Your task to perform on an android device: Open Wikipedia Image 0: 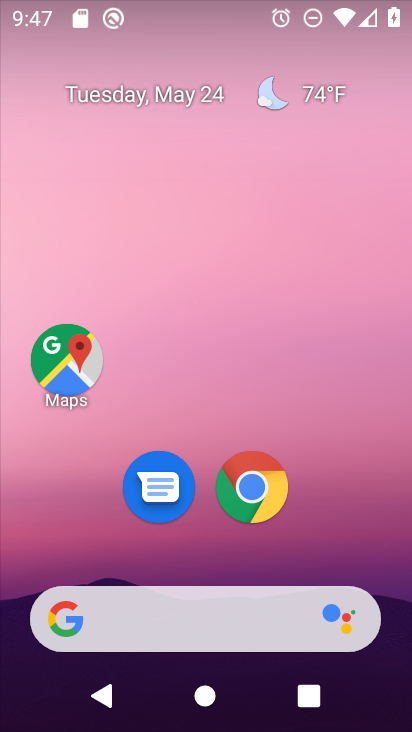
Step 0: click (244, 489)
Your task to perform on an android device: Open Wikipedia Image 1: 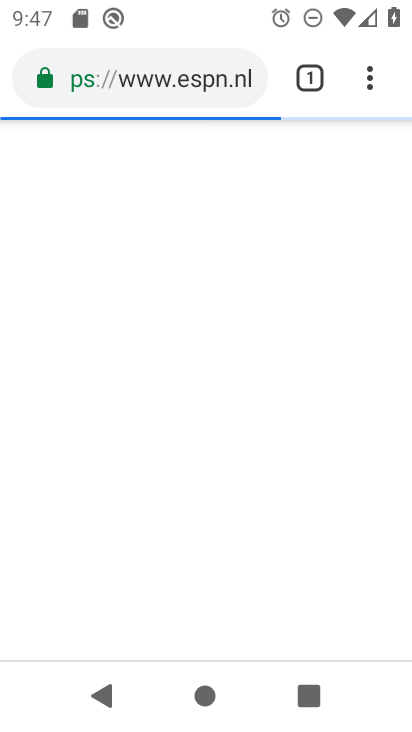
Step 1: click (85, 86)
Your task to perform on an android device: Open Wikipedia Image 2: 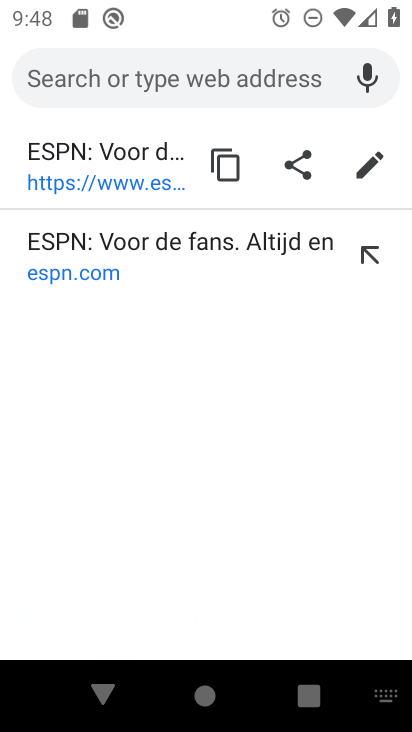
Step 2: type "wikipedia"
Your task to perform on an android device: Open Wikipedia Image 3: 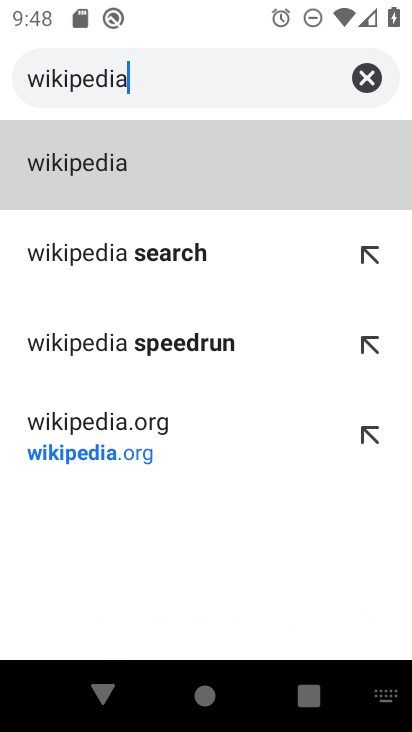
Step 3: click (42, 166)
Your task to perform on an android device: Open Wikipedia Image 4: 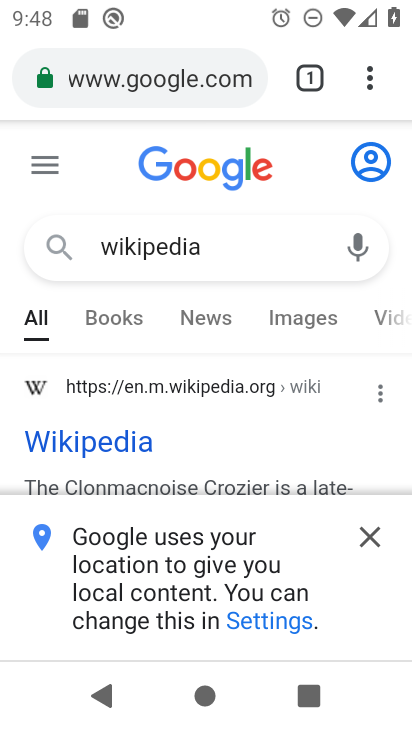
Step 4: click (123, 452)
Your task to perform on an android device: Open Wikipedia Image 5: 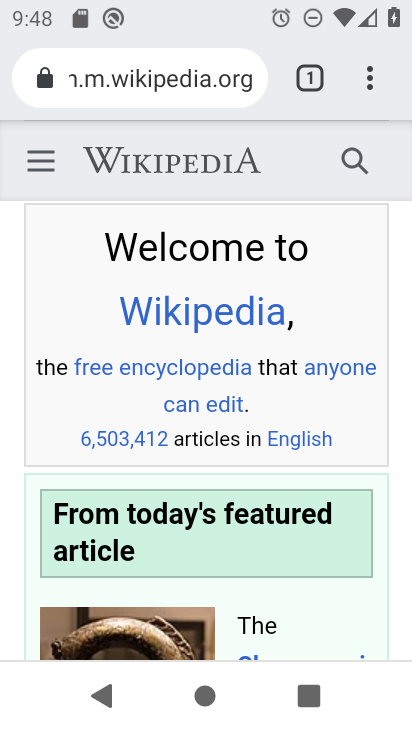
Step 5: task complete